Your task to perform on an android device: turn on wifi Image 0: 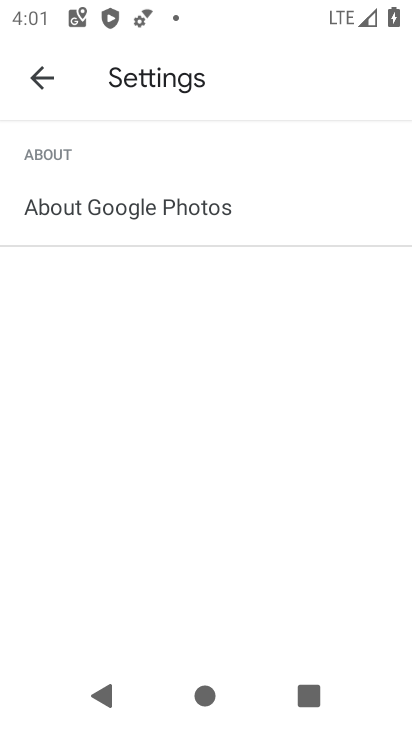
Step 0: press home button
Your task to perform on an android device: turn on wifi Image 1: 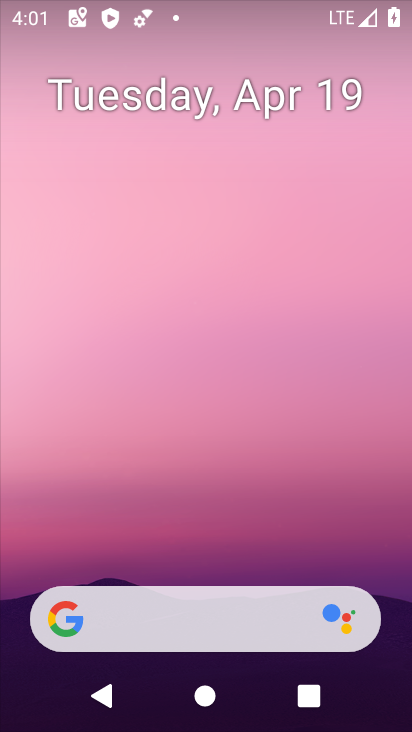
Step 1: drag from (189, 561) to (282, 176)
Your task to perform on an android device: turn on wifi Image 2: 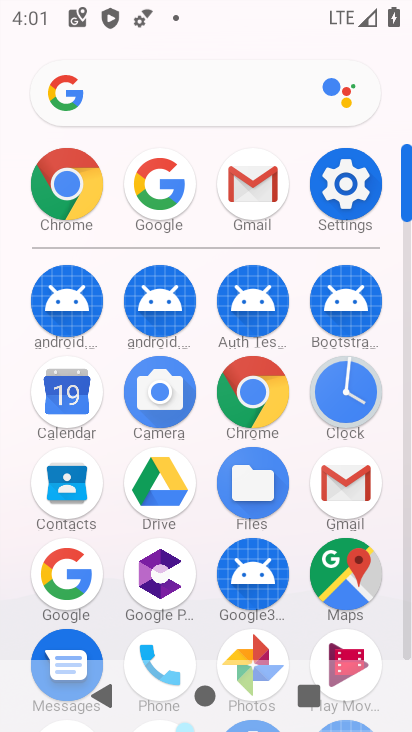
Step 2: click (351, 185)
Your task to perform on an android device: turn on wifi Image 3: 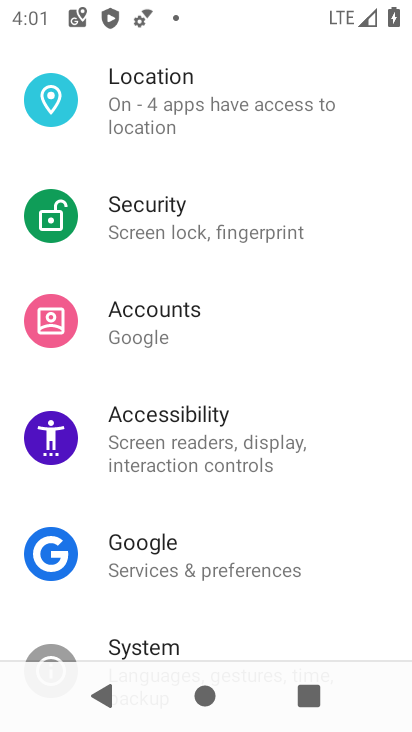
Step 3: drag from (245, 293) to (260, 398)
Your task to perform on an android device: turn on wifi Image 4: 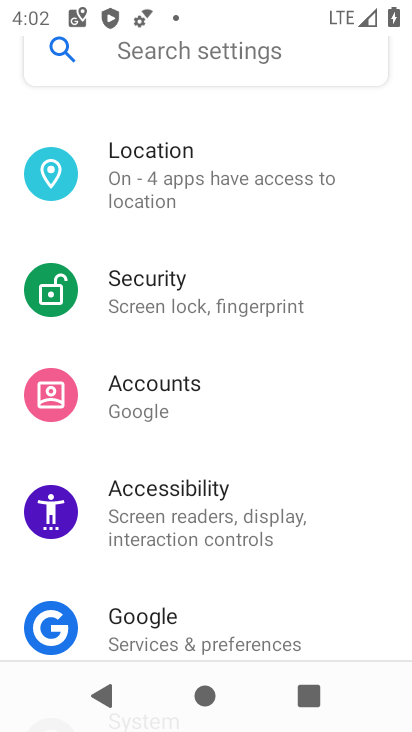
Step 4: drag from (246, 248) to (288, 362)
Your task to perform on an android device: turn on wifi Image 5: 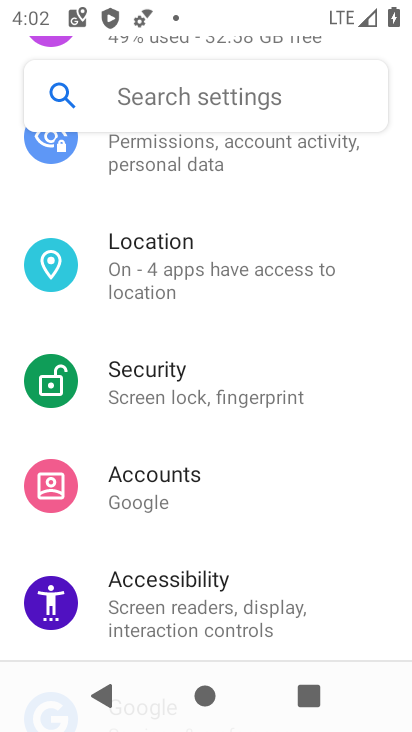
Step 5: drag from (243, 215) to (247, 324)
Your task to perform on an android device: turn on wifi Image 6: 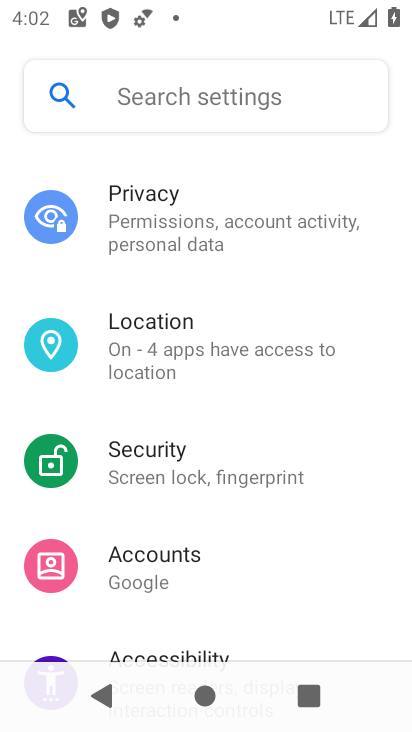
Step 6: drag from (219, 188) to (233, 307)
Your task to perform on an android device: turn on wifi Image 7: 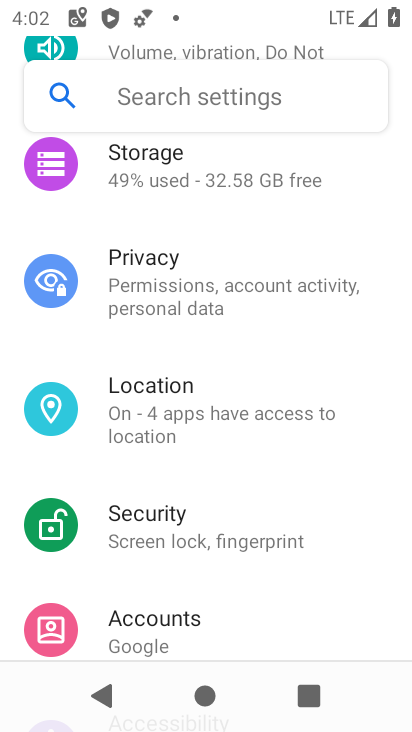
Step 7: drag from (206, 212) to (189, 305)
Your task to perform on an android device: turn on wifi Image 8: 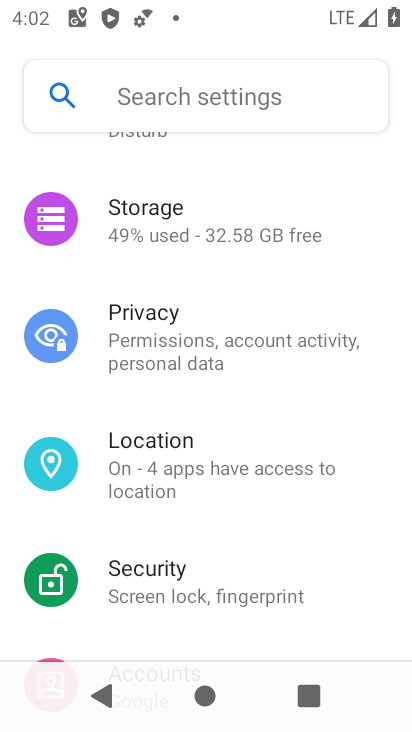
Step 8: drag from (196, 172) to (221, 303)
Your task to perform on an android device: turn on wifi Image 9: 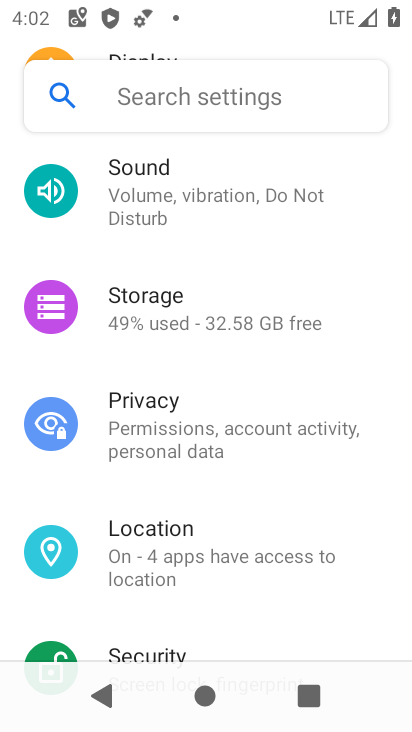
Step 9: drag from (217, 242) to (210, 342)
Your task to perform on an android device: turn on wifi Image 10: 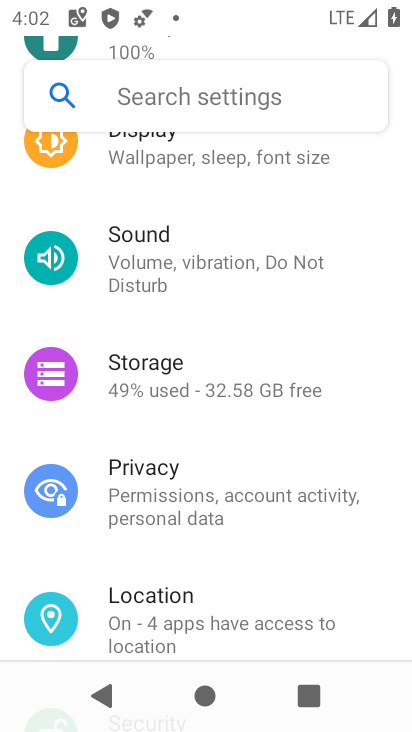
Step 10: drag from (225, 209) to (193, 370)
Your task to perform on an android device: turn on wifi Image 11: 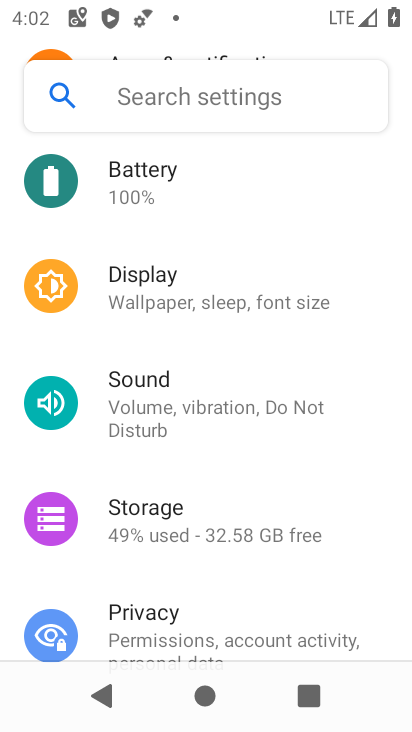
Step 11: drag from (199, 237) to (211, 372)
Your task to perform on an android device: turn on wifi Image 12: 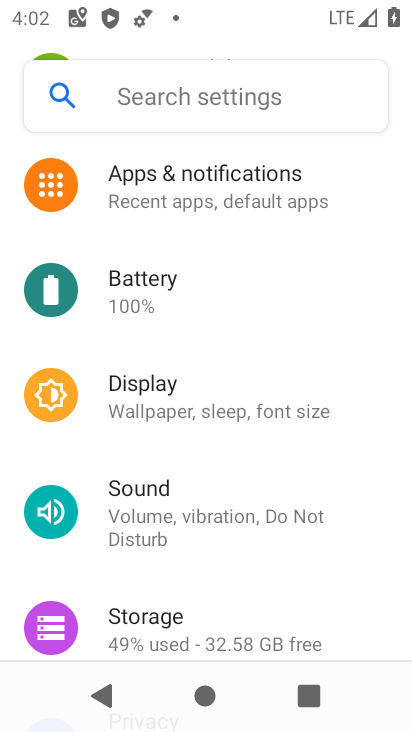
Step 12: drag from (183, 247) to (206, 365)
Your task to perform on an android device: turn on wifi Image 13: 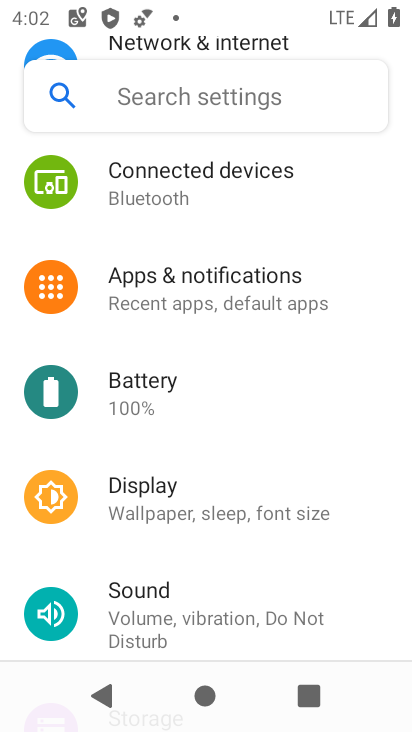
Step 13: drag from (194, 243) to (207, 364)
Your task to perform on an android device: turn on wifi Image 14: 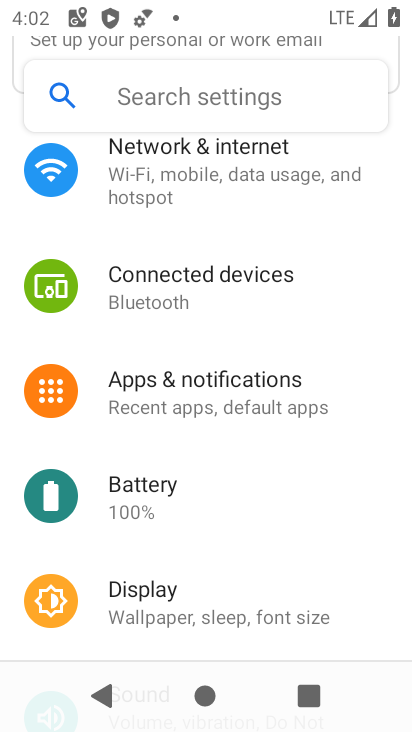
Step 14: drag from (172, 256) to (197, 362)
Your task to perform on an android device: turn on wifi Image 15: 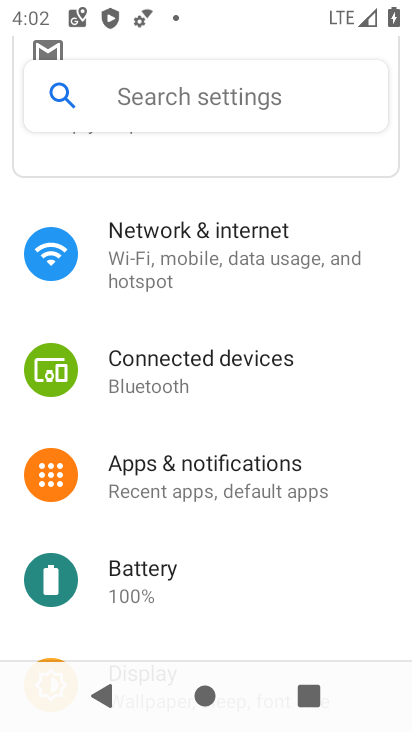
Step 15: click (197, 236)
Your task to perform on an android device: turn on wifi Image 16: 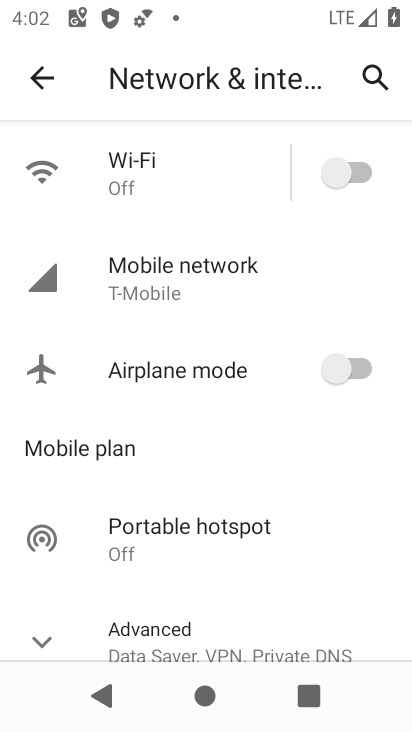
Step 16: click (328, 182)
Your task to perform on an android device: turn on wifi Image 17: 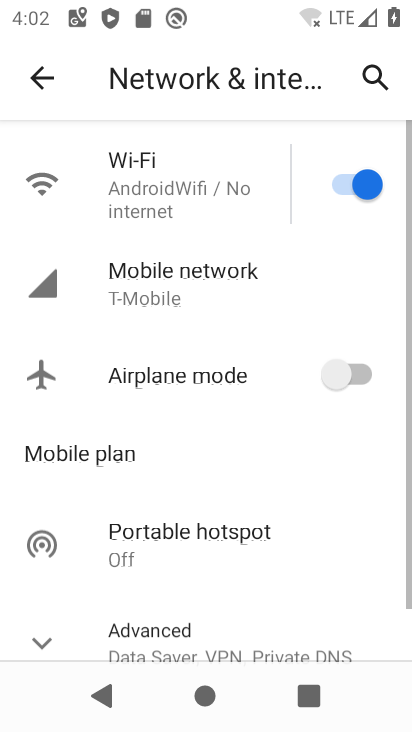
Step 17: task complete